Your task to perform on an android device: change alarm snooze length Image 0: 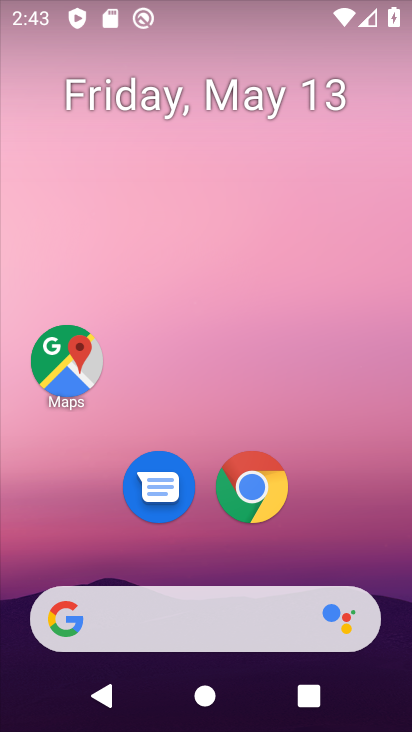
Step 0: drag from (357, 501) to (324, 29)
Your task to perform on an android device: change alarm snooze length Image 1: 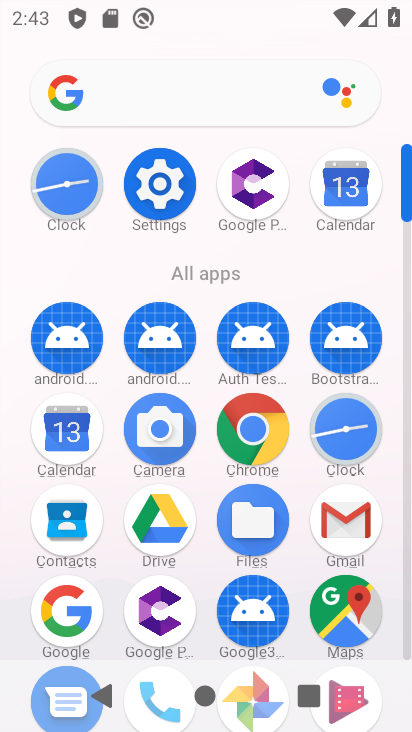
Step 1: click (328, 422)
Your task to perform on an android device: change alarm snooze length Image 2: 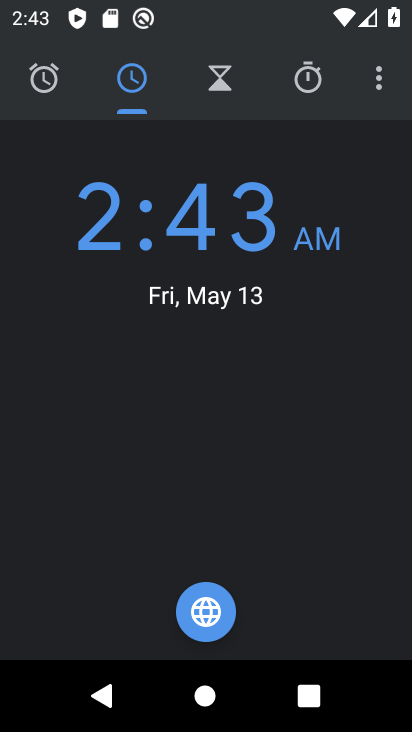
Step 2: click (381, 69)
Your task to perform on an android device: change alarm snooze length Image 3: 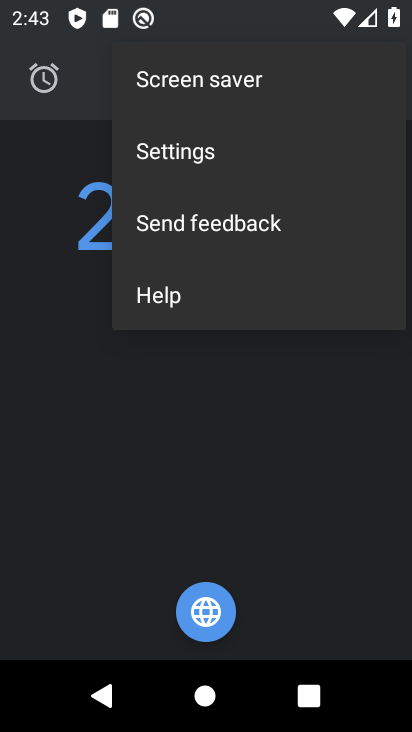
Step 3: click (193, 150)
Your task to perform on an android device: change alarm snooze length Image 4: 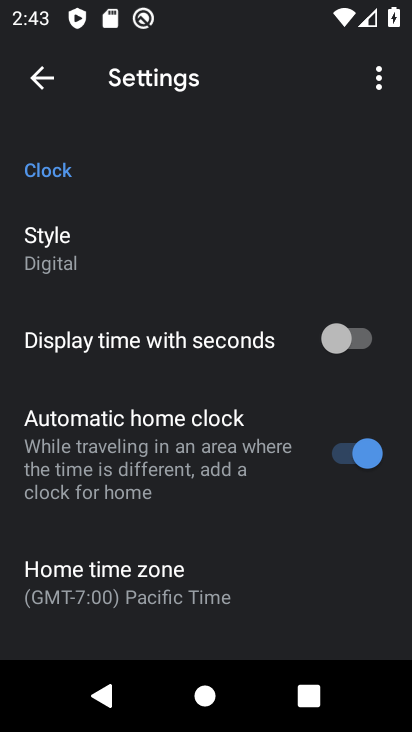
Step 4: drag from (184, 510) to (263, 144)
Your task to perform on an android device: change alarm snooze length Image 5: 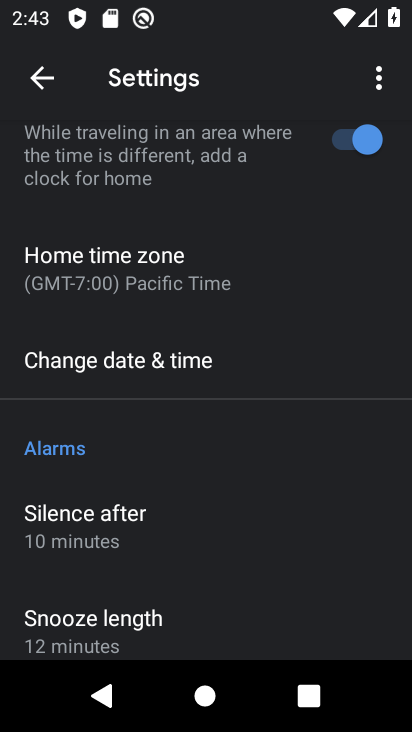
Step 5: drag from (171, 588) to (199, 233)
Your task to perform on an android device: change alarm snooze length Image 6: 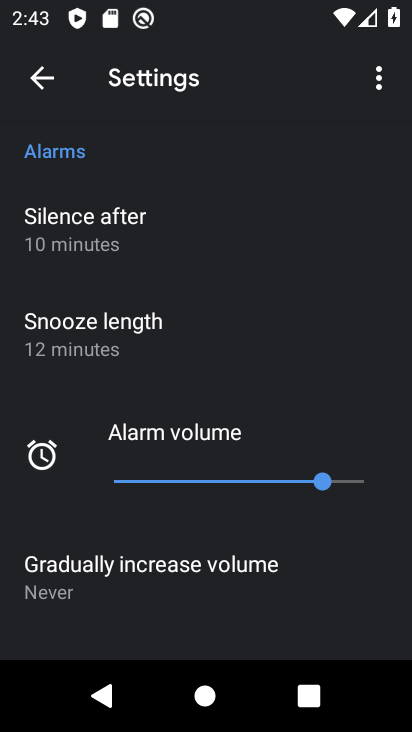
Step 6: click (97, 325)
Your task to perform on an android device: change alarm snooze length Image 7: 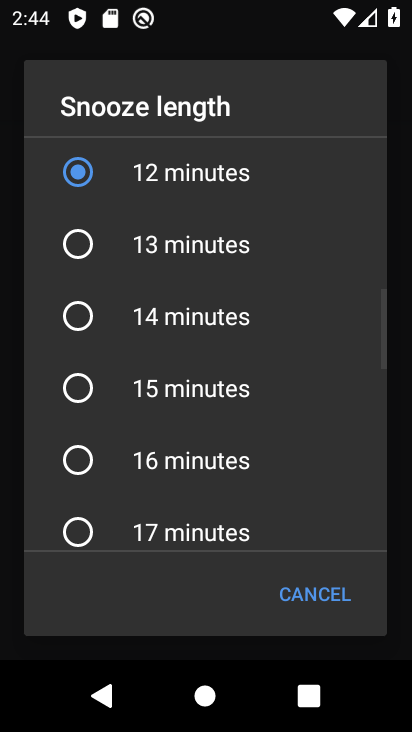
Step 7: click (72, 390)
Your task to perform on an android device: change alarm snooze length Image 8: 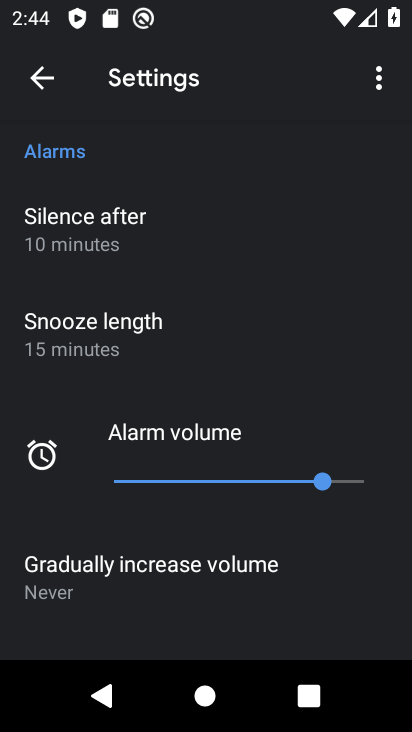
Step 8: task complete